Your task to perform on an android device: Open privacy settings Image 0: 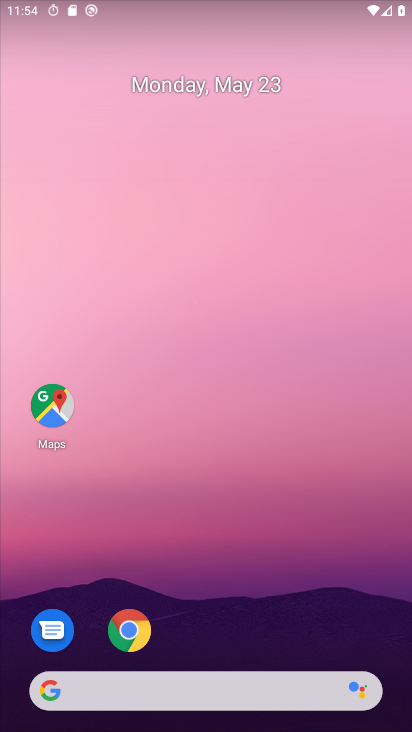
Step 0: drag from (184, 638) to (167, 20)
Your task to perform on an android device: Open privacy settings Image 1: 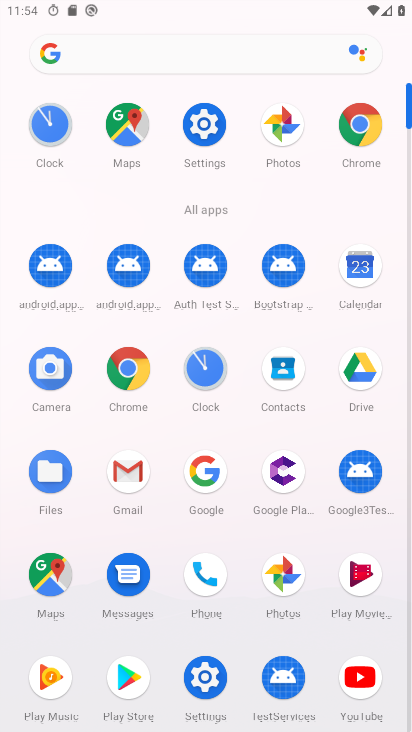
Step 1: click (212, 141)
Your task to perform on an android device: Open privacy settings Image 2: 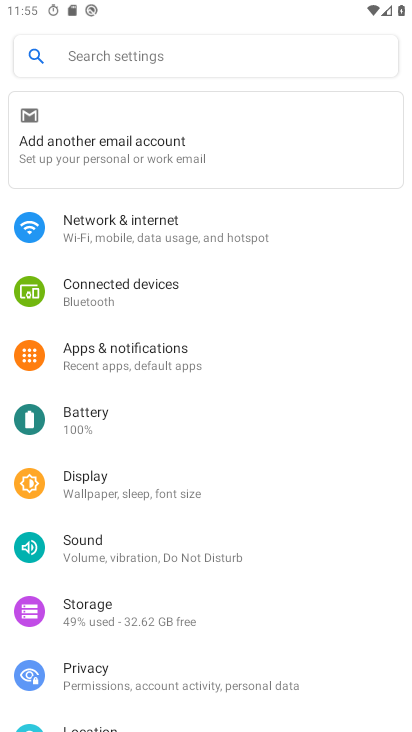
Step 2: click (101, 686)
Your task to perform on an android device: Open privacy settings Image 3: 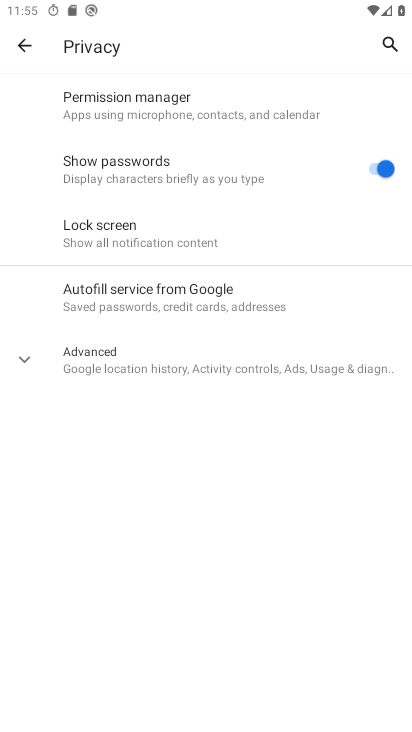
Step 3: task complete